Your task to perform on an android device: Open internet settings Image 0: 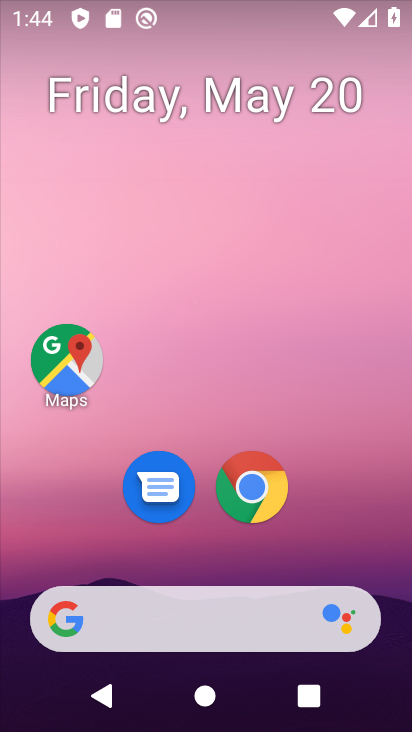
Step 0: drag from (365, 550) to (332, 113)
Your task to perform on an android device: Open internet settings Image 1: 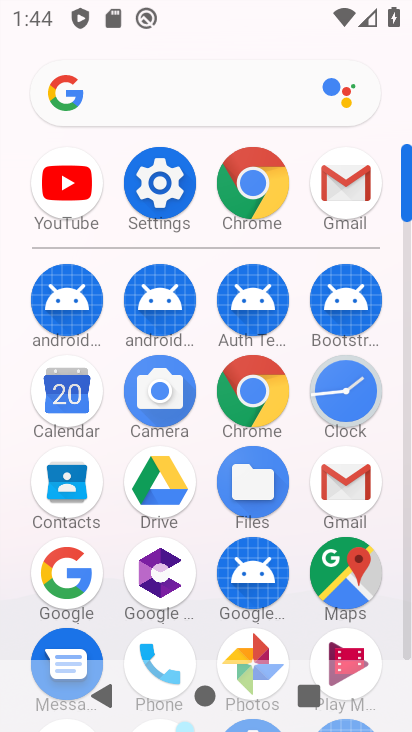
Step 1: click (181, 195)
Your task to perform on an android device: Open internet settings Image 2: 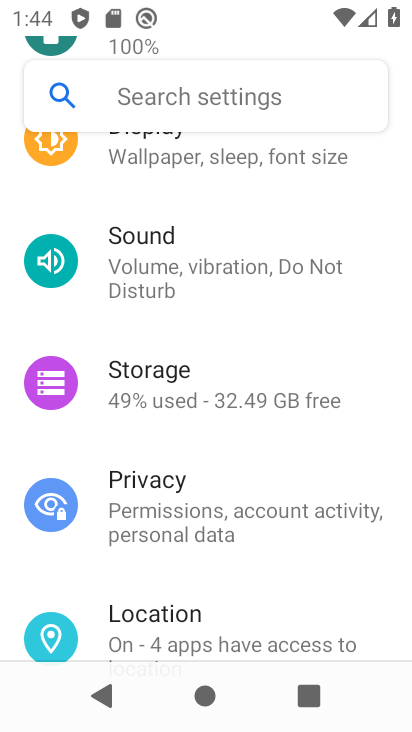
Step 2: drag from (177, 193) to (171, 659)
Your task to perform on an android device: Open internet settings Image 3: 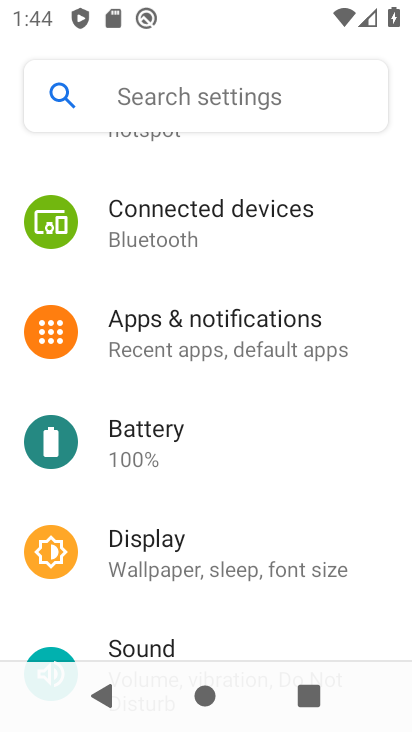
Step 3: drag from (217, 197) to (204, 612)
Your task to perform on an android device: Open internet settings Image 4: 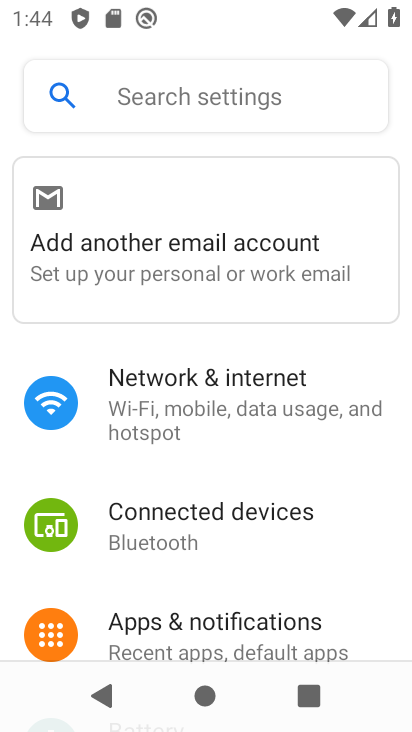
Step 4: click (149, 392)
Your task to perform on an android device: Open internet settings Image 5: 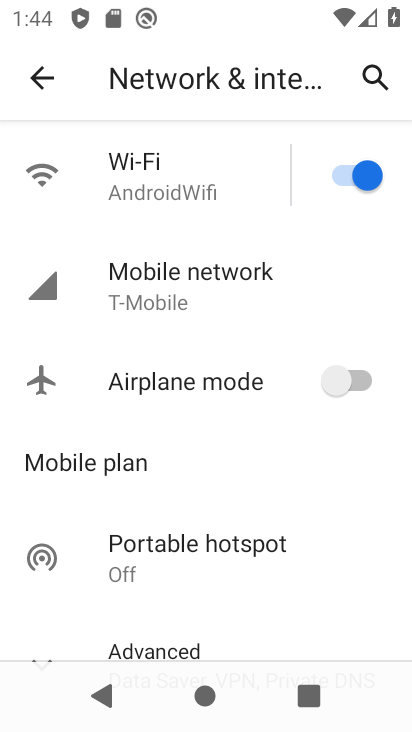
Step 5: click (175, 278)
Your task to perform on an android device: Open internet settings Image 6: 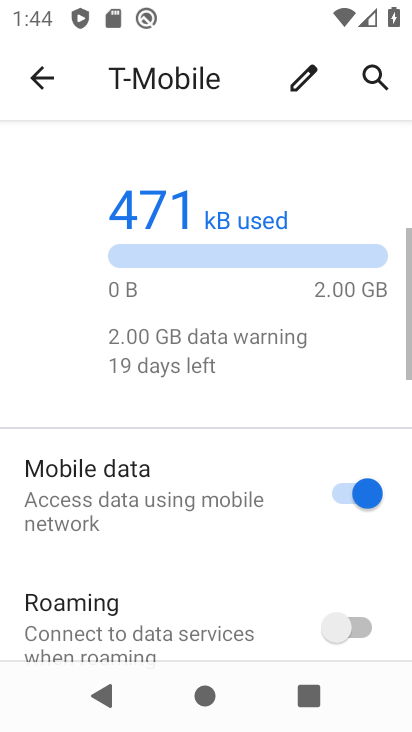
Step 6: task complete